Your task to perform on an android device: Open internet settings Image 0: 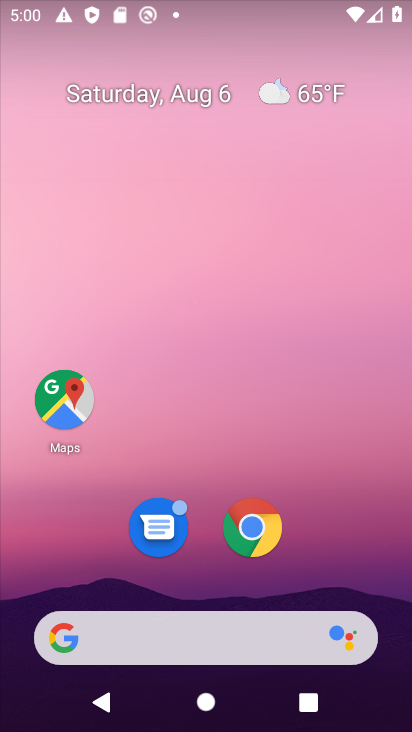
Step 0: drag from (164, 619) to (229, 7)
Your task to perform on an android device: Open internet settings Image 1: 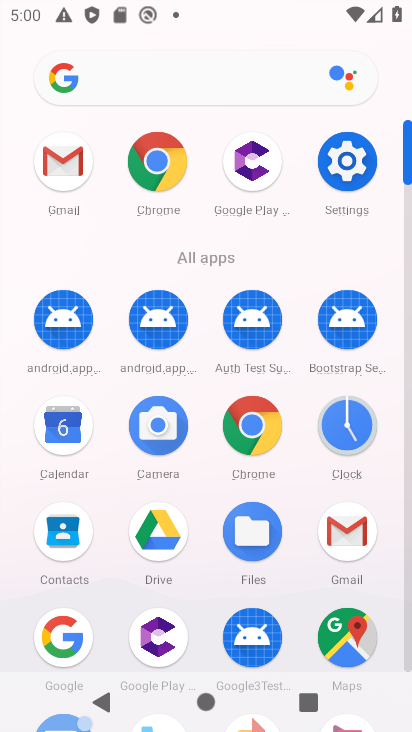
Step 1: click (343, 138)
Your task to perform on an android device: Open internet settings Image 2: 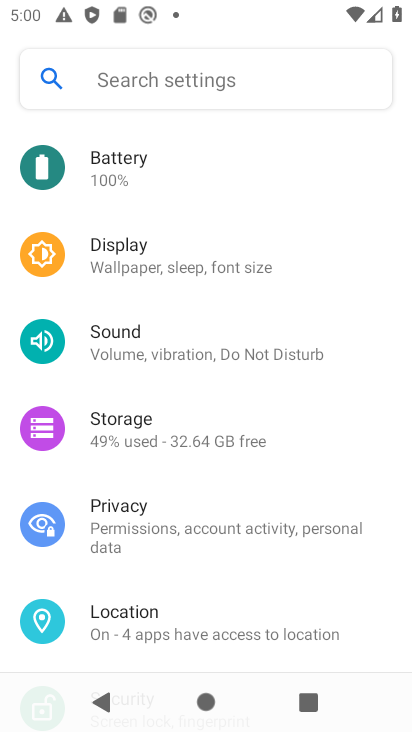
Step 2: drag from (175, 156) to (263, 635)
Your task to perform on an android device: Open internet settings Image 3: 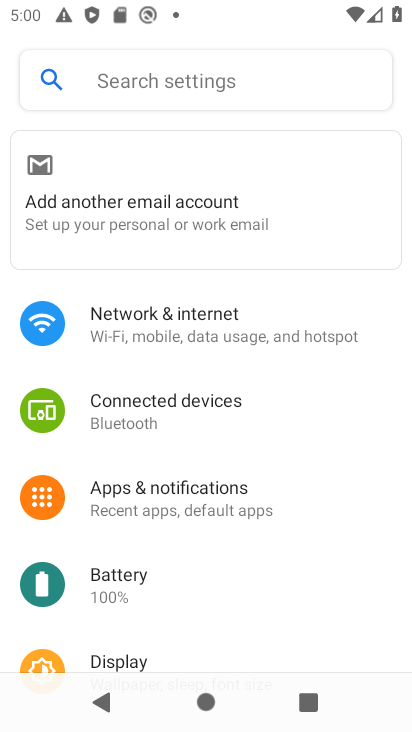
Step 3: click (186, 323)
Your task to perform on an android device: Open internet settings Image 4: 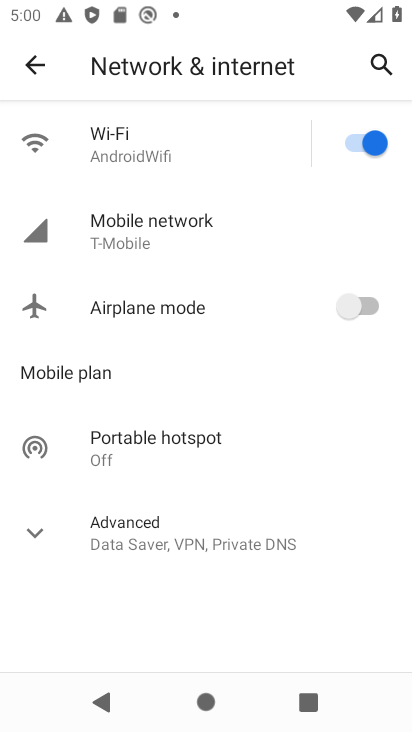
Step 4: click (135, 123)
Your task to perform on an android device: Open internet settings Image 5: 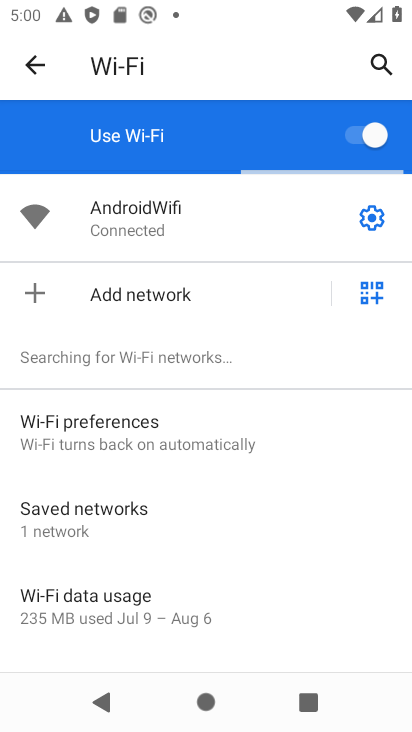
Step 5: task complete